Your task to perform on an android device: What's the weather today? Image 0: 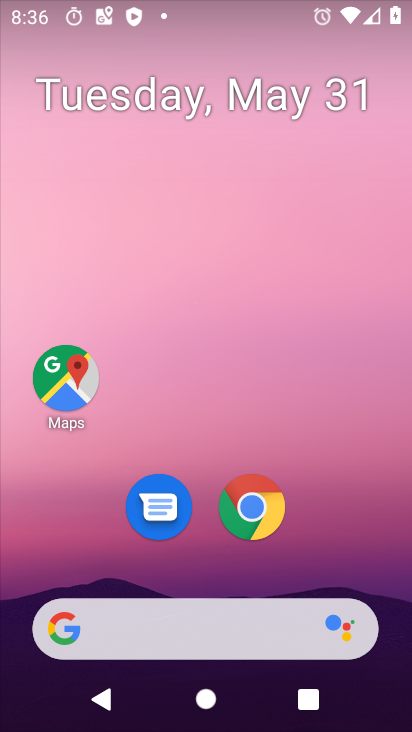
Step 0: click (118, 626)
Your task to perform on an android device: What's the weather today? Image 1: 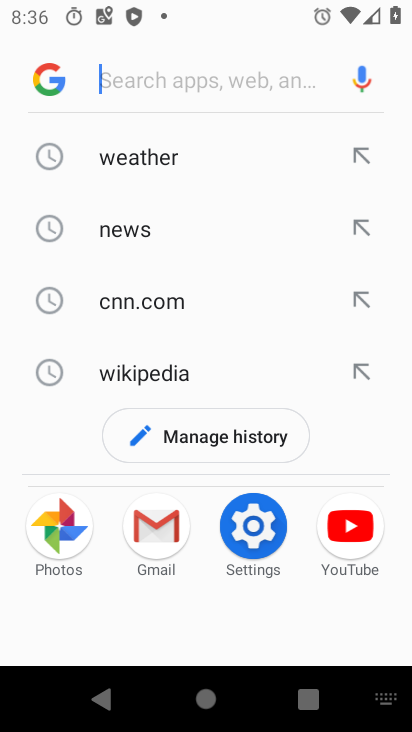
Step 1: click (134, 158)
Your task to perform on an android device: What's the weather today? Image 2: 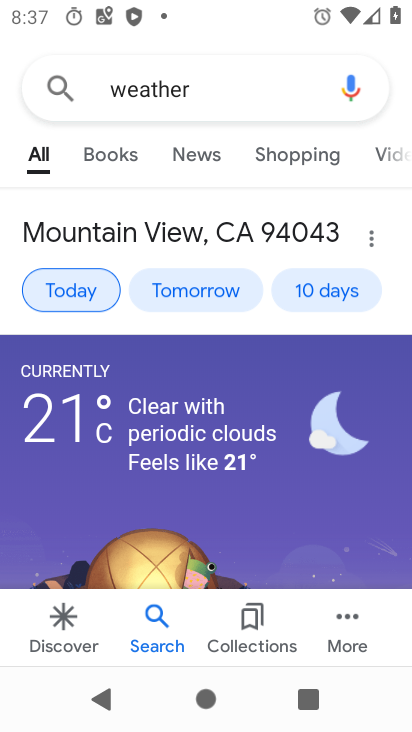
Step 2: task complete